Your task to perform on an android device: Turn off the flashlight Image 0: 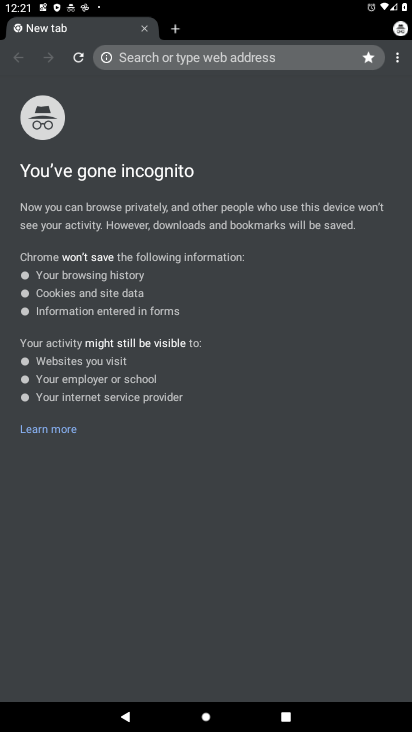
Step 0: press home button
Your task to perform on an android device: Turn off the flashlight Image 1: 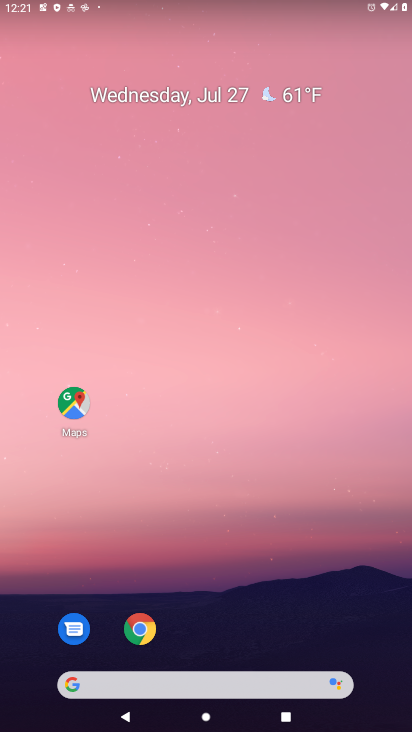
Step 1: drag from (281, 644) to (308, 78)
Your task to perform on an android device: Turn off the flashlight Image 2: 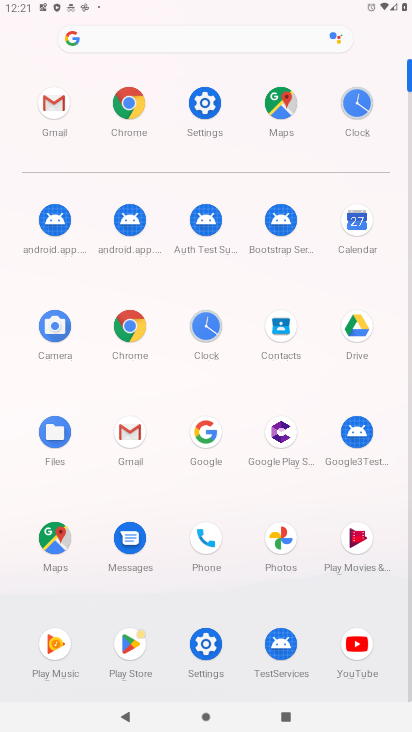
Step 2: click (201, 119)
Your task to perform on an android device: Turn off the flashlight Image 3: 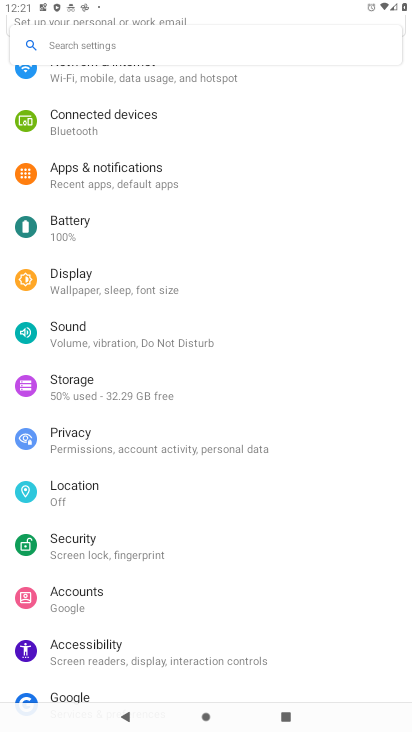
Step 3: task complete